Your task to perform on an android device: open chrome privacy settings Image 0: 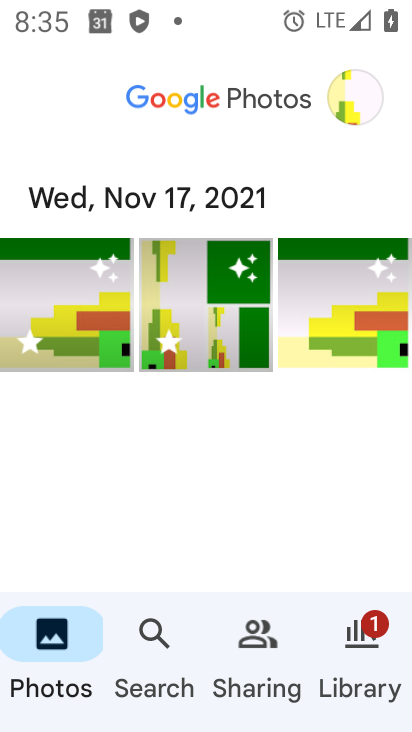
Step 0: press home button
Your task to perform on an android device: open chrome privacy settings Image 1: 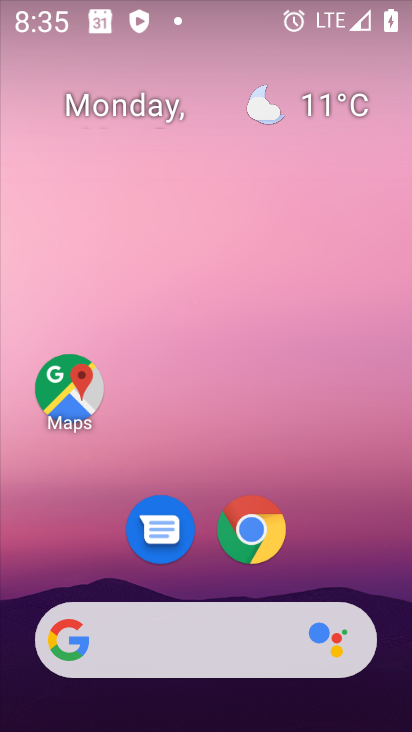
Step 1: click (244, 547)
Your task to perform on an android device: open chrome privacy settings Image 2: 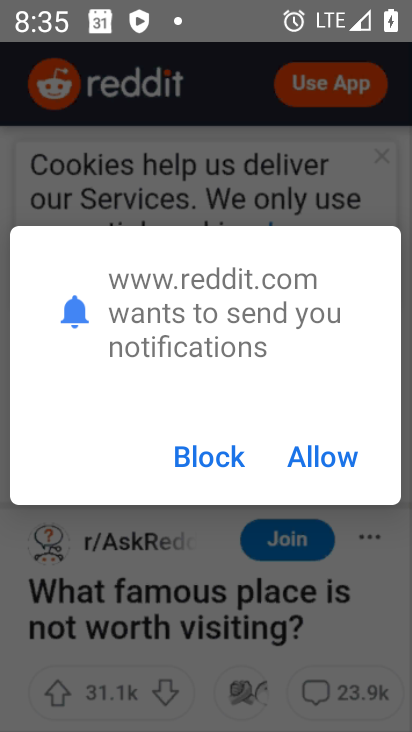
Step 2: press back button
Your task to perform on an android device: open chrome privacy settings Image 3: 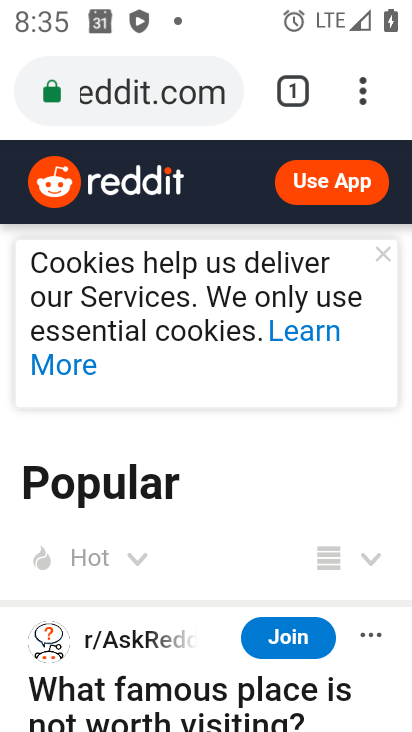
Step 3: click (352, 91)
Your task to perform on an android device: open chrome privacy settings Image 4: 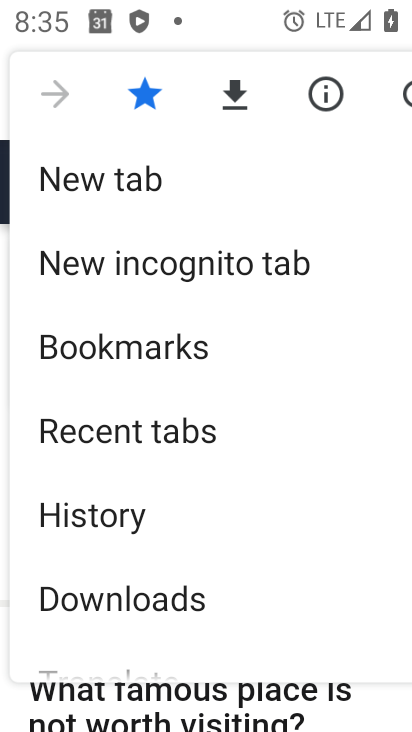
Step 4: drag from (131, 555) to (106, 68)
Your task to perform on an android device: open chrome privacy settings Image 5: 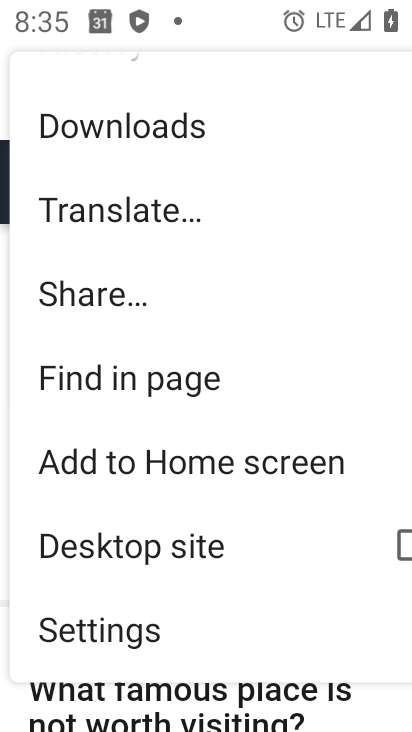
Step 5: click (129, 625)
Your task to perform on an android device: open chrome privacy settings Image 6: 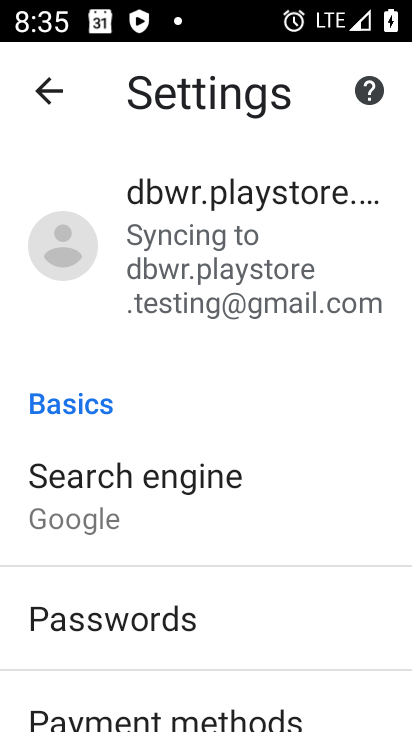
Step 6: drag from (152, 573) to (155, 118)
Your task to perform on an android device: open chrome privacy settings Image 7: 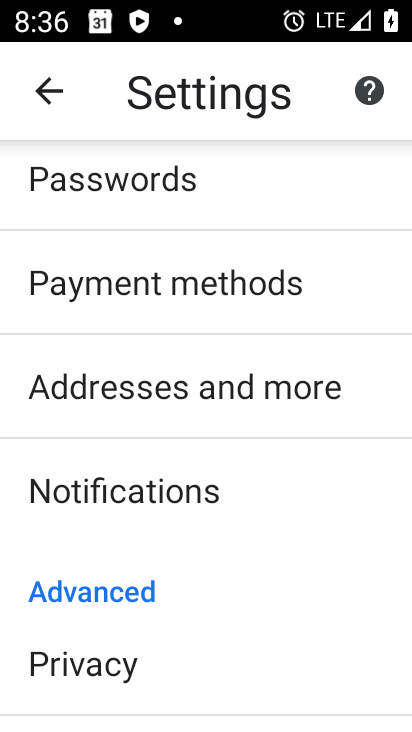
Step 7: click (153, 663)
Your task to perform on an android device: open chrome privacy settings Image 8: 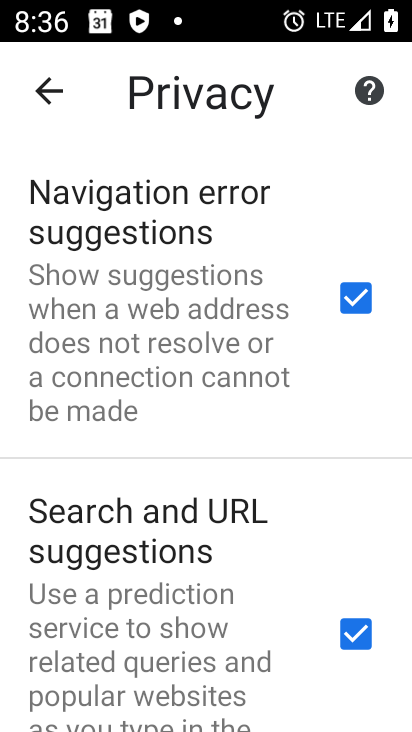
Step 8: task complete